Your task to perform on an android device: Is it going to rain tomorrow? Image 0: 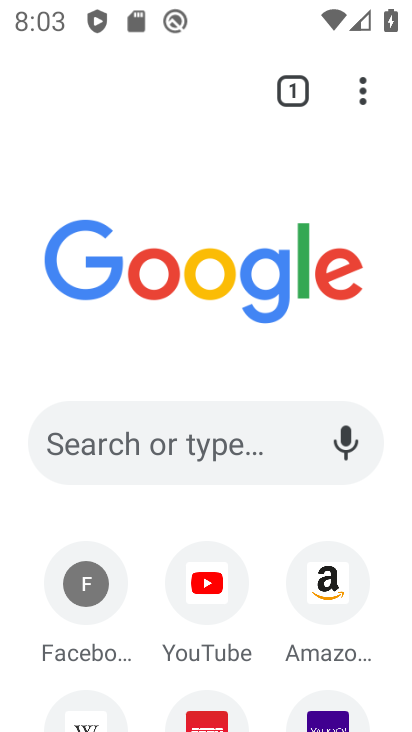
Step 0: press home button
Your task to perform on an android device: Is it going to rain tomorrow? Image 1: 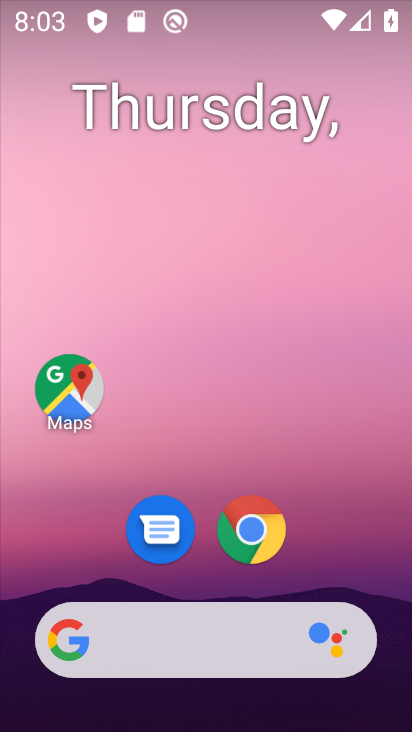
Step 1: click (81, 646)
Your task to perform on an android device: Is it going to rain tomorrow? Image 2: 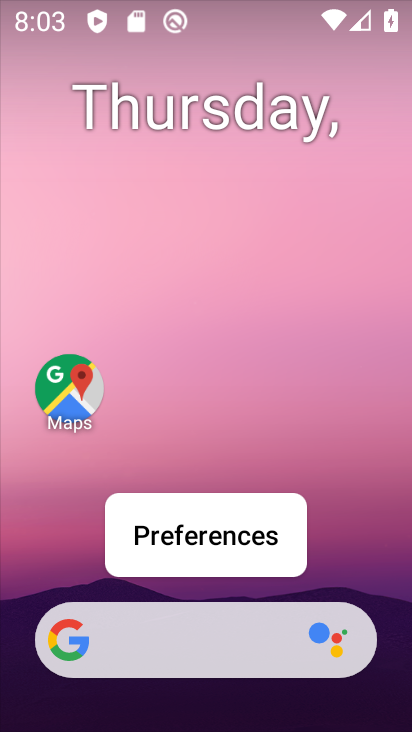
Step 2: click (76, 639)
Your task to perform on an android device: Is it going to rain tomorrow? Image 3: 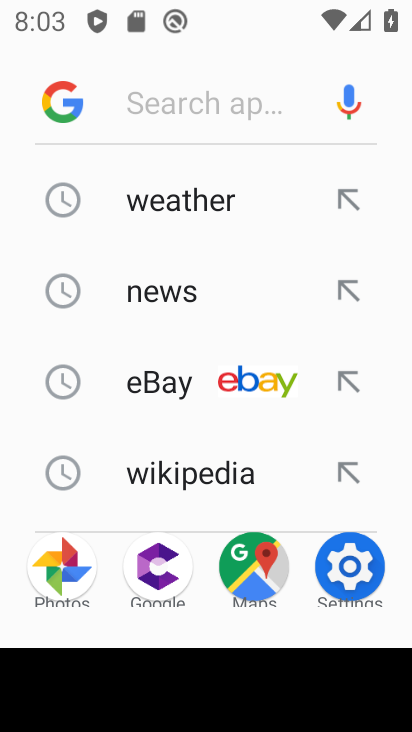
Step 3: click (203, 200)
Your task to perform on an android device: Is it going to rain tomorrow? Image 4: 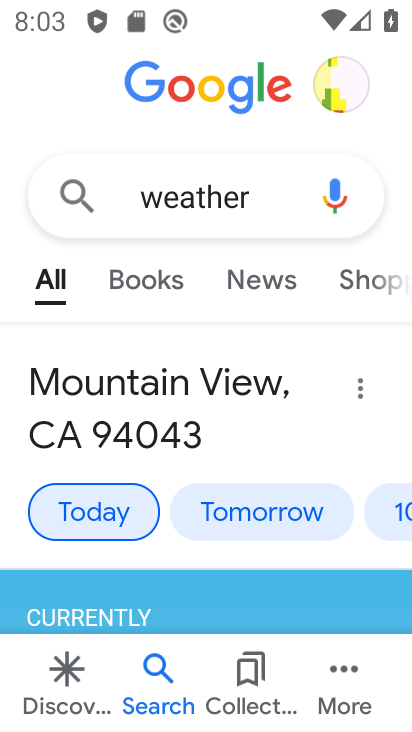
Step 4: click (237, 516)
Your task to perform on an android device: Is it going to rain tomorrow? Image 5: 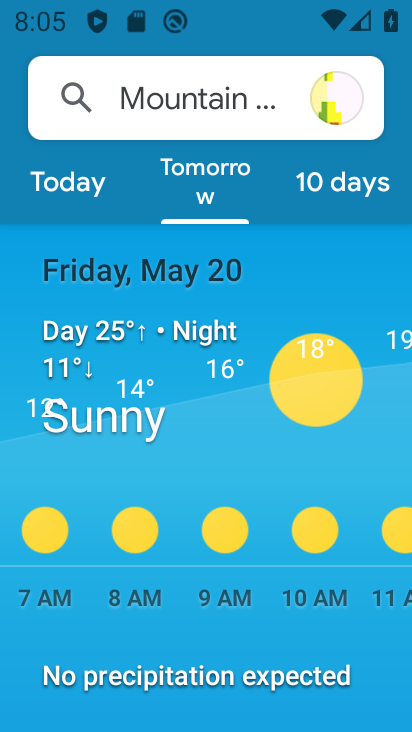
Step 5: task complete